Your task to perform on an android device: Go to Google Image 0: 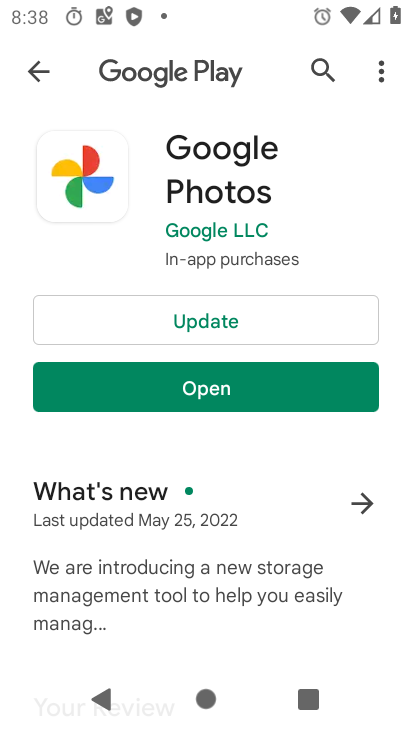
Step 0: press home button
Your task to perform on an android device: Go to Google Image 1: 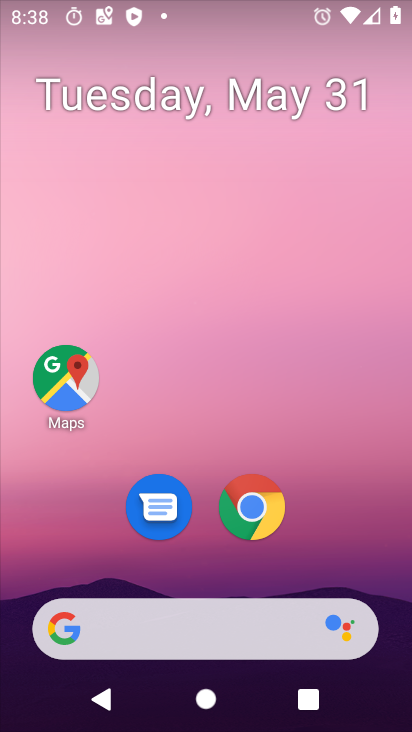
Step 1: drag from (351, 569) to (310, 12)
Your task to perform on an android device: Go to Google Image 2: 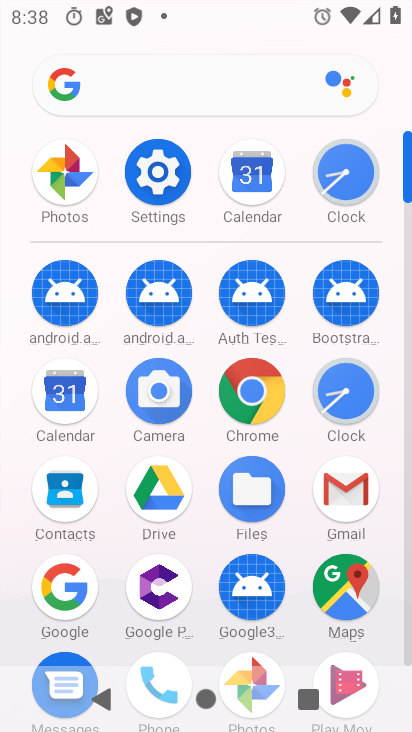
Step 2: click (70, 601)
Your task to perform on an android device: Go to Google Image 3: 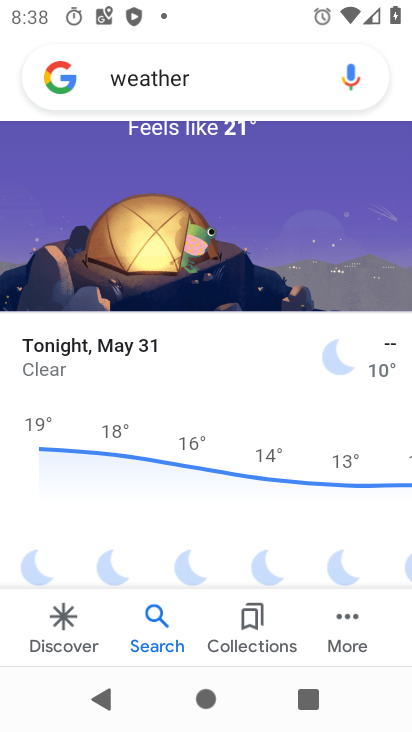
Step 3: task complete